Your task to perform on an android device: set an alarm Image 0: 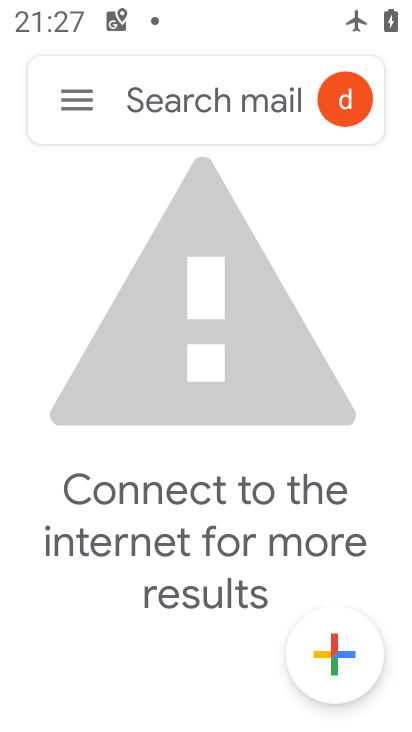
Step 0: press back button
Your task to perform on an android device: set an alarm Image 1: 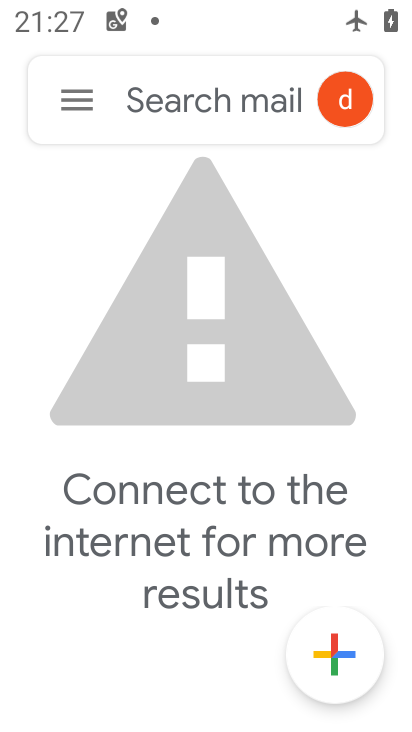
Step 1: press back button
Your task to perform on an android device: set an alarm Image 2: 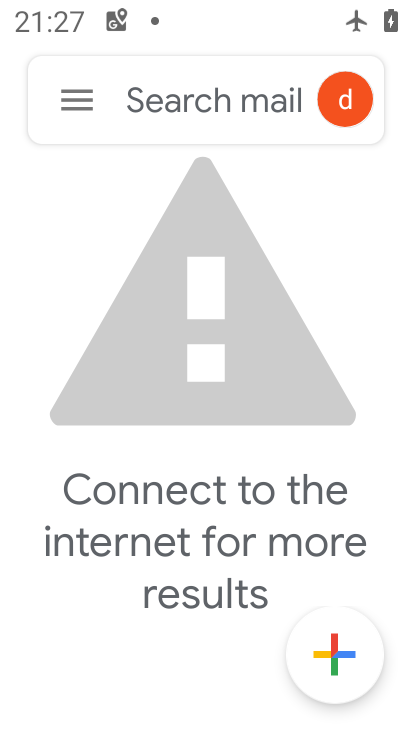
Step 2: press back button
Your task to perform on an android device: set an alarm Image 3: 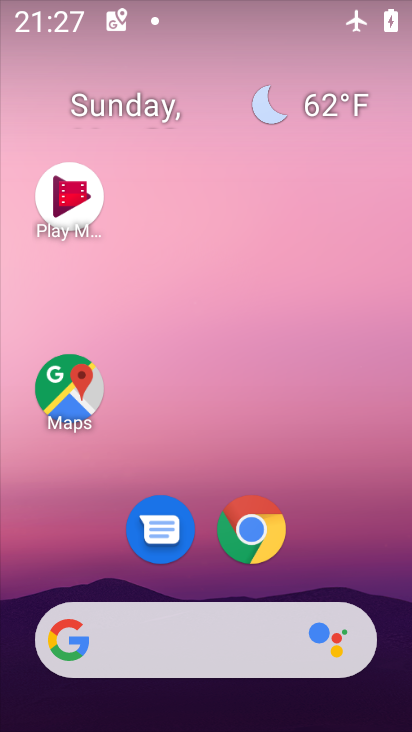
Step 3: drag from (250, 707) to (244, 256)
Your task to perform on an android device: set an alarm Image 4: 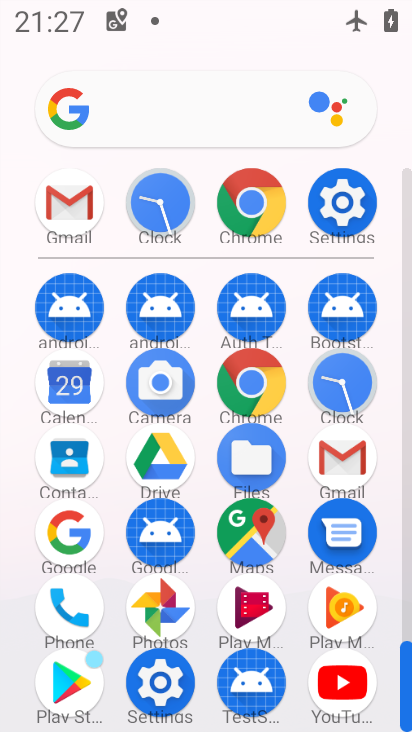
Step 4: click (344, 396)
Your task to perform on an android device: set an alarm Image 5: 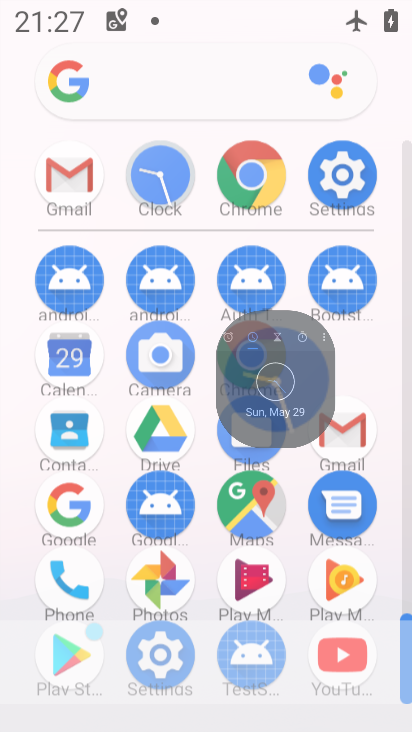
Step 5: click (344, 396)
Your task to perform on an android device: set an alarm Image 6: 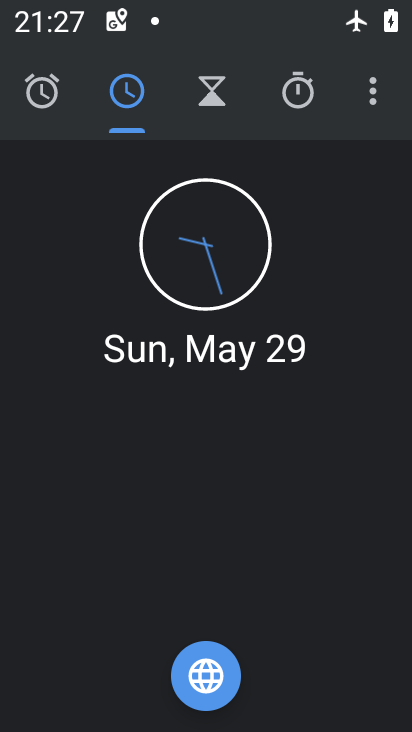
Step 6: click (49, 93)
Your task to perform on an android device: set an alarm Image 7: 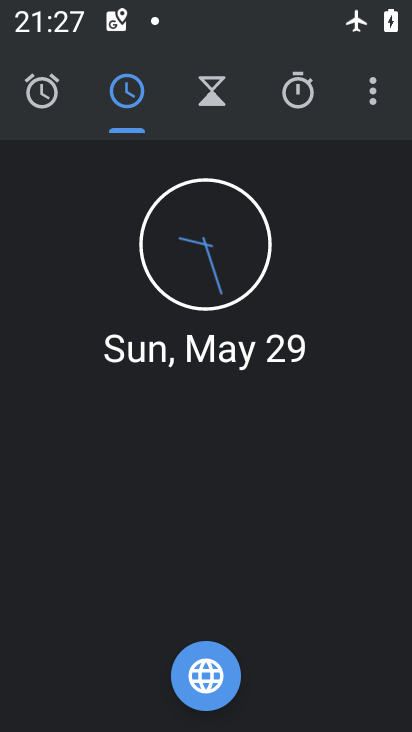
Step 7: click (46, 99)
Your task to perform on an android device: set an alarm Image 8: 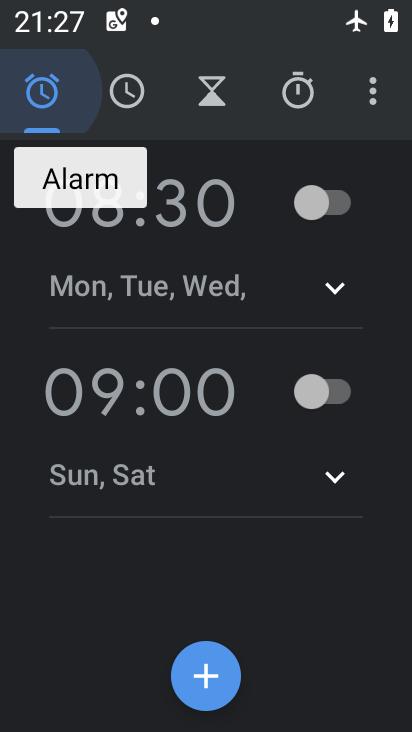
Step 8: click (45, 99)
Your task to perform on an android device: set an alarm Image 9: 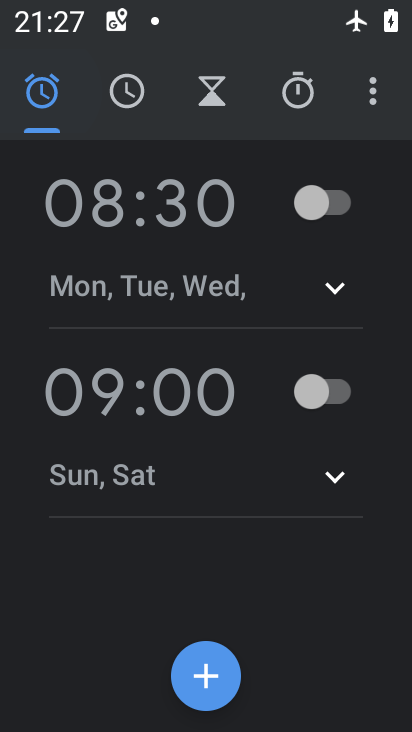
Step 9: click (42, 96)
Your task to perform on an android device: set an alarm Image 10: 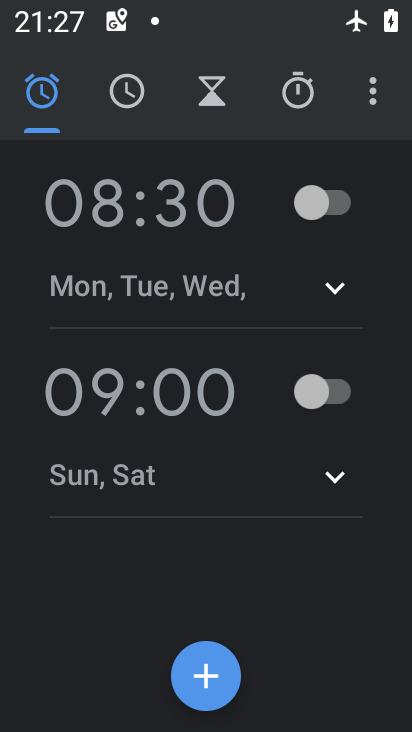
Step 10: click (320, 206)
Your task to perform on an android device: set an alarm Image 11: 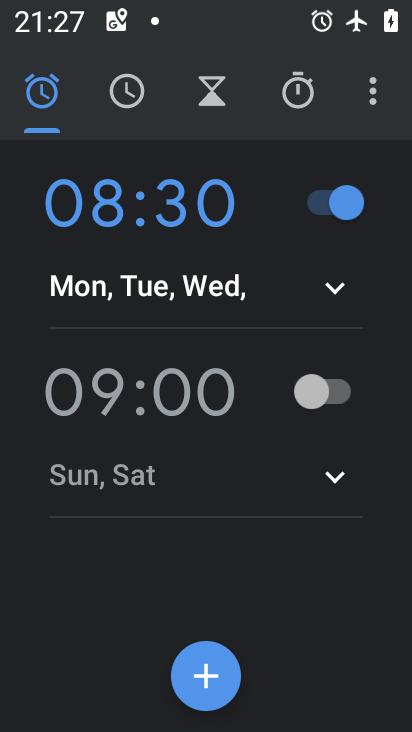
Step 11: task complete